Your task to perform on an android device: Open Wikipedia Image 0: 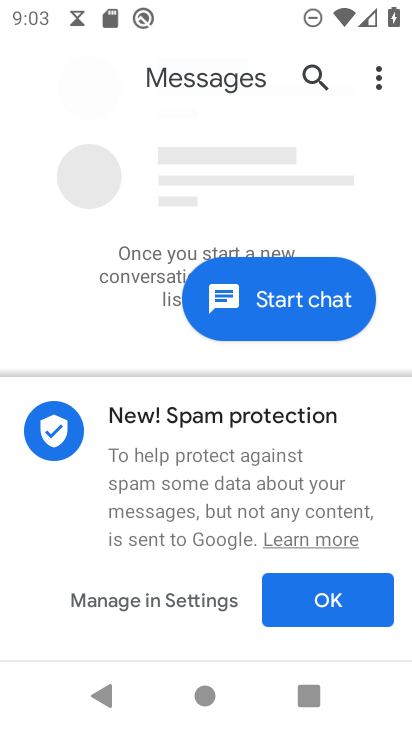
Step 0: press home button
Your task to perform on an android device: Open Wikipedia Image 1: 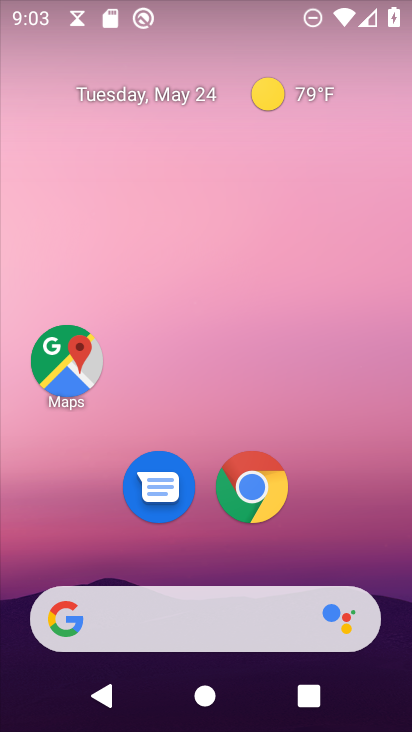
Step 1: click (268, 471)
Your task to perform on an android device: Open Wikipedia Image 2: 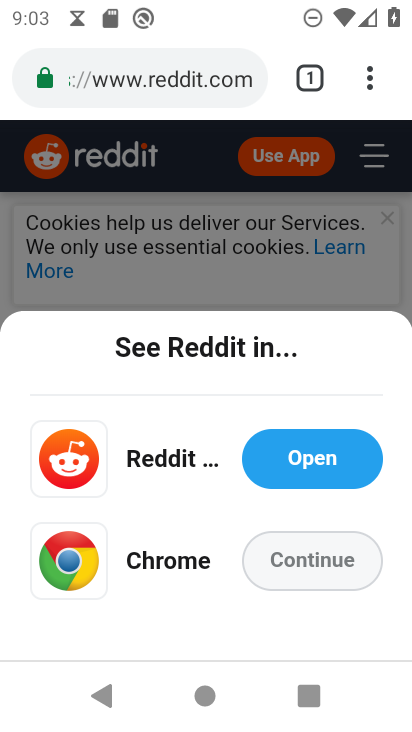
Step 2: click (311, 80)
Your task to perform on an android device: Open Wikipedia Image 3: 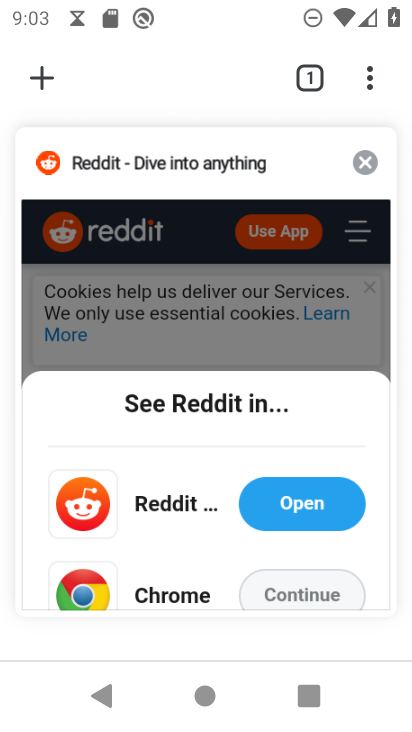
Step 3: click (32, 84)
Your task to perform on an android device: Open Wikipedia Image 4: 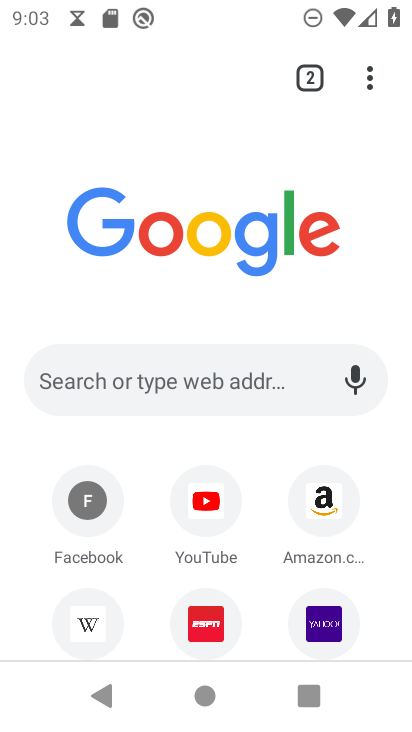
Step 4: click (80, 602)
Your task to perform on an android device: Open Wikipedia Image 5: 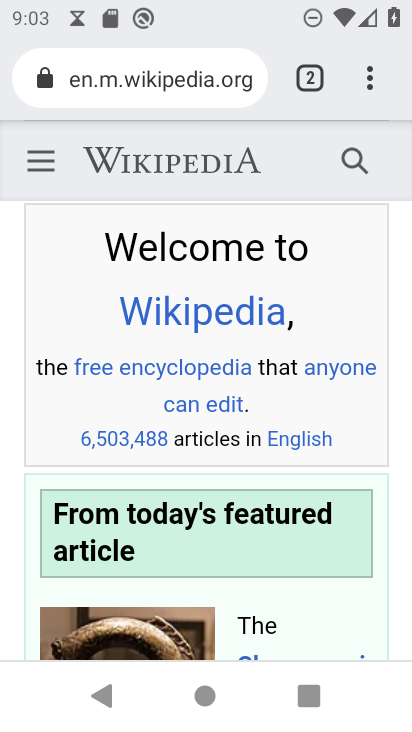
Step 5: task complete